Your task to perform on an android device: Go to Yahoo.com Image 0: 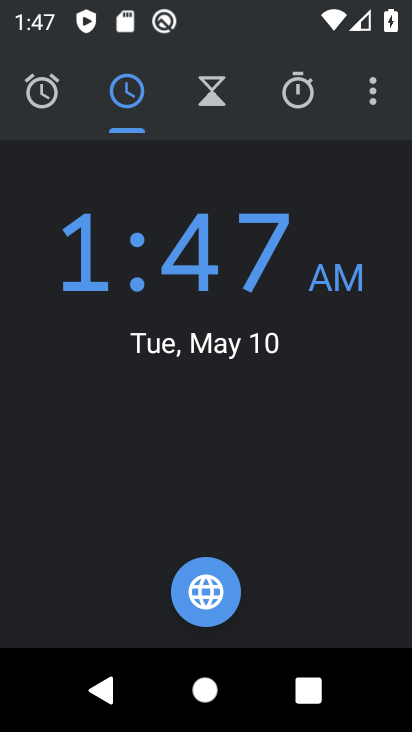
Step 0: press home button
Your task to perform on an android device: Go to Yahoo.com Image 1: 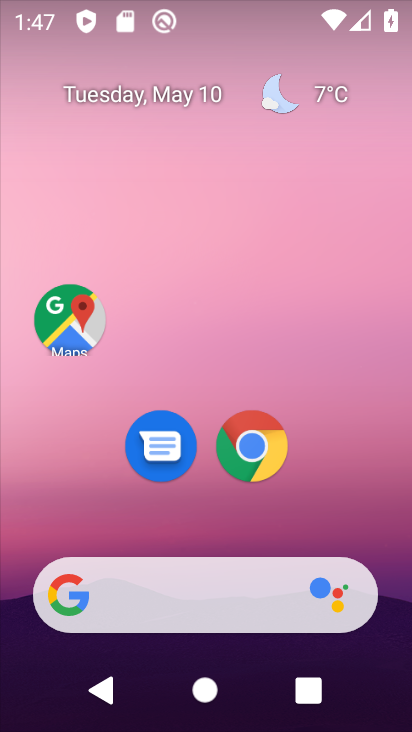
Step 1: click (243, 458)
Your task to perform on an android device: Go to Yahoo.com Image 2: 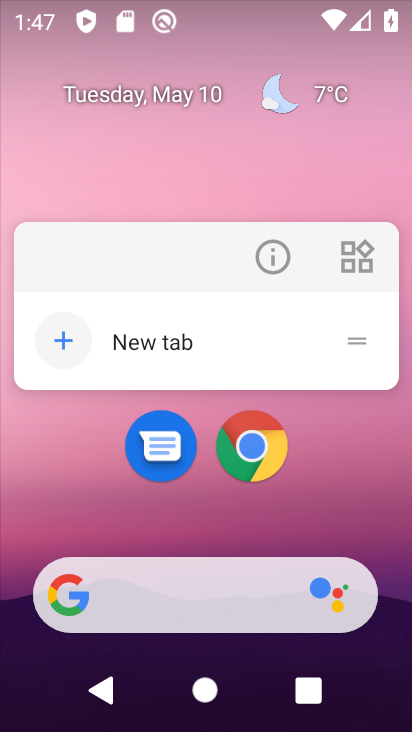
Step 2: click (229, 448)
Your task to perform on an android device: Go to Yahoo.com Image 3: 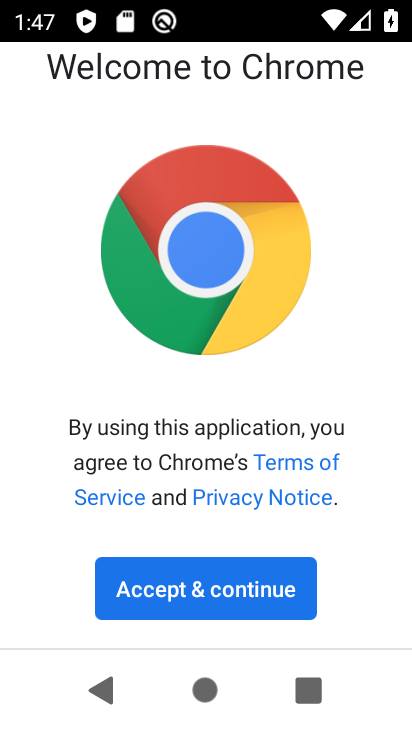
Step 3: click (228, 607)
Your task to perform on an android device: Go to Yahoo.com Image 4: 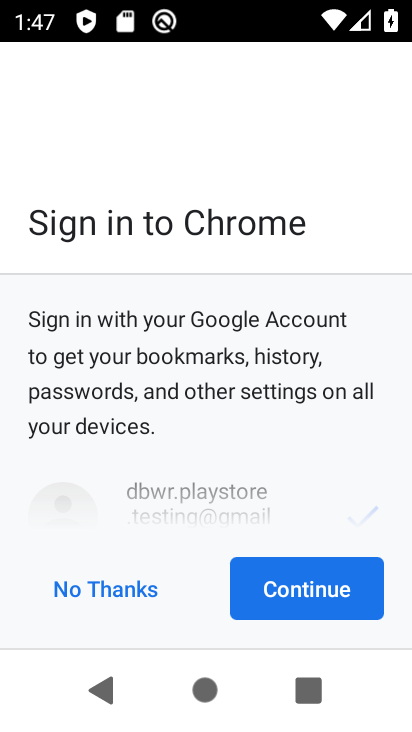
Step 4: click (301, 601)
Your task to perform on an android device: Go to Yahoo.com Image 5: 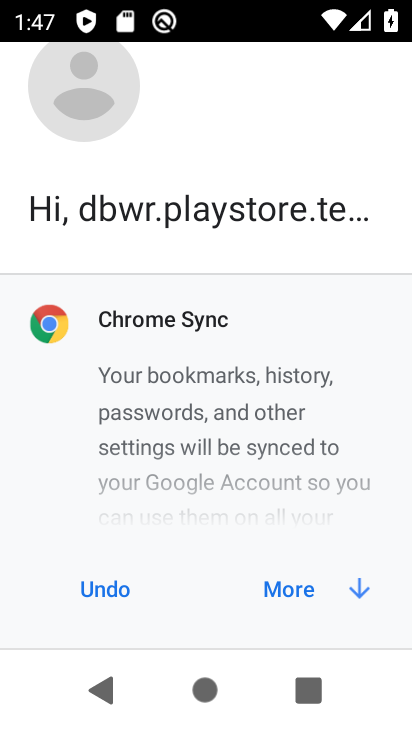
Step 5: click (338, 587)
Your task to perform on an android device: Go to Yahoo.com Image 6: 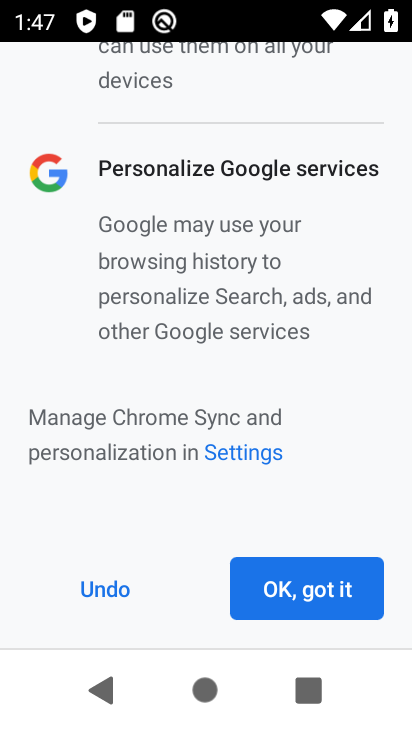
Step 6: click (332, 589)
Your task to perform on an android device: Go to Yahoo.com Image 7: 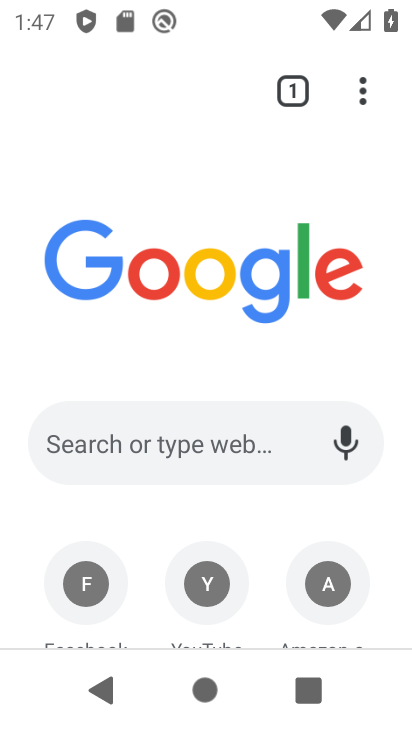
Step 7: click (166, 433)
Your task to perform on an android device: Go to Yahoo.com Image 8: 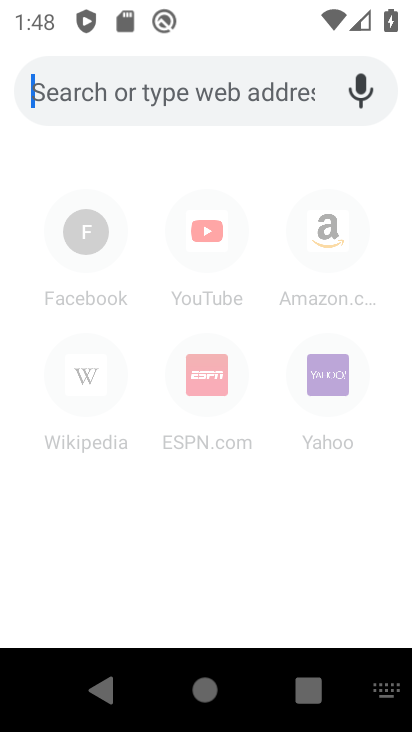
Step 8: type "yahoo.com"
Your task to perform on an android device: Go to Yahoo.com Image 9: 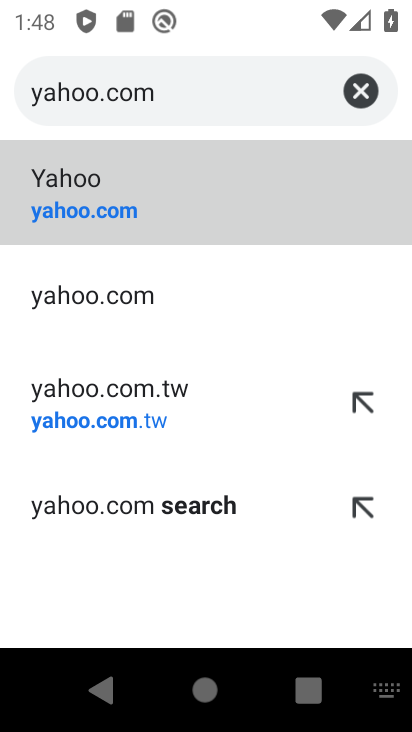
Step 9: click (130, 173)
Your task to perform on an android device: Go to Yahoo.com Image 10: 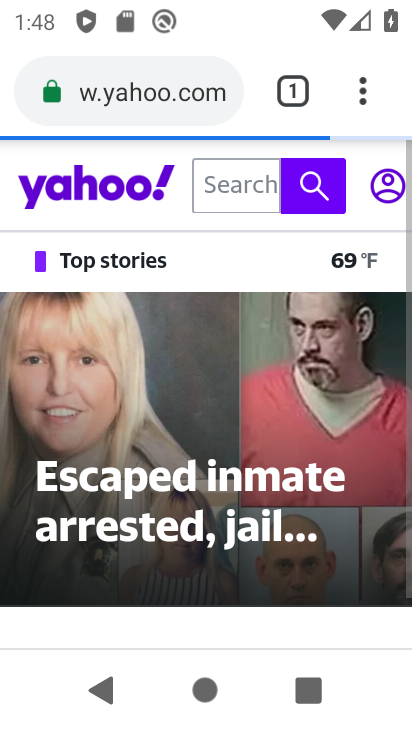
Step 10: task complete